Your task to perform on an android device: turn on translation in the chrome app Image 0: 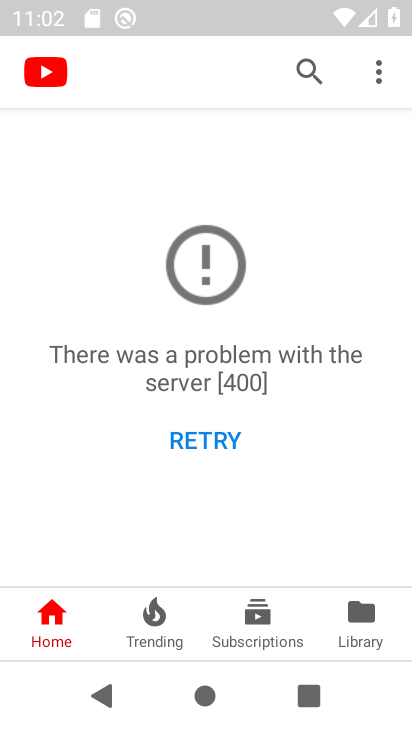
Step 0: press back button
Your task to perform on an android device: turn on translation in the chrome app Image 1: 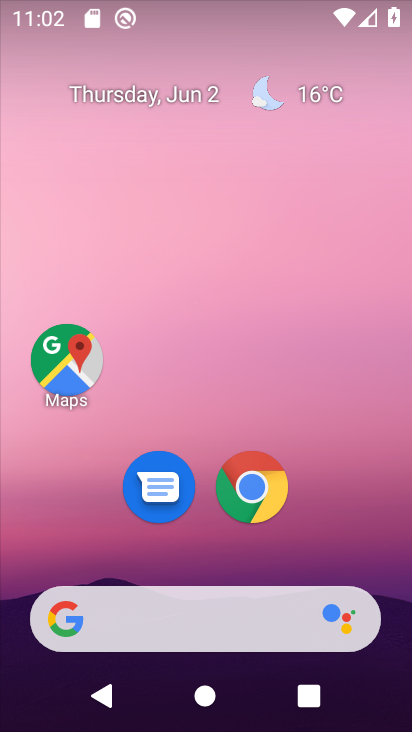
Step 1: click (253, 487)
Your task to perform on an android device: turn on translation in the chrome app Image 2: 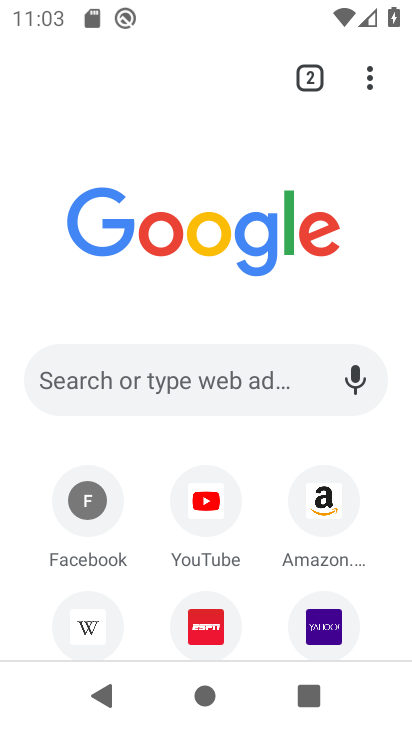
Step 2: click (371, 78)
Your task to perform on an android device: turn on translation in the chrome app Image 3: 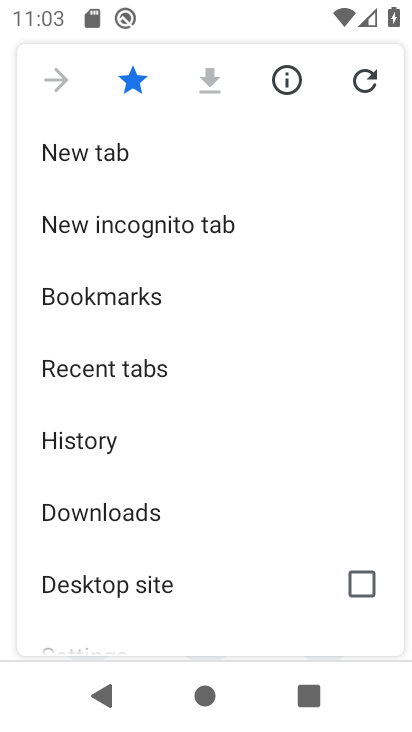
Step 3: drag from (126, 395) to (111, 312)
Your task to perform on an android device: turn on translation in the chrome app Image 4: 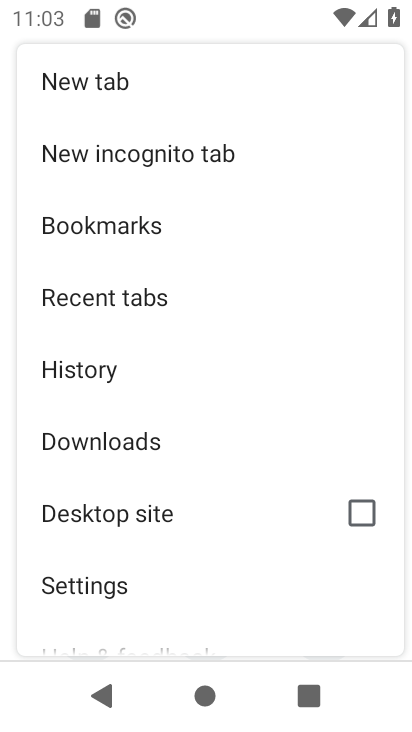
Step 4: drag from (114, 410) to (136, 335)
Your task to perform on an android device: turn on translation in the chrome app Image 5: 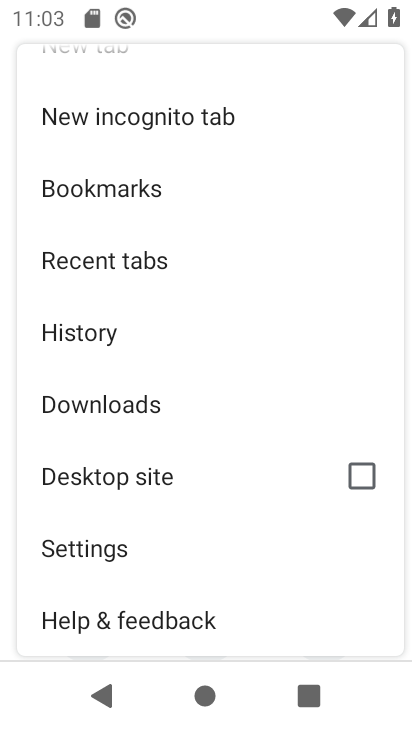
Step 5: click (101, 547)
Your task to perform on an android device: turn on translation in the chrome app Image 6: 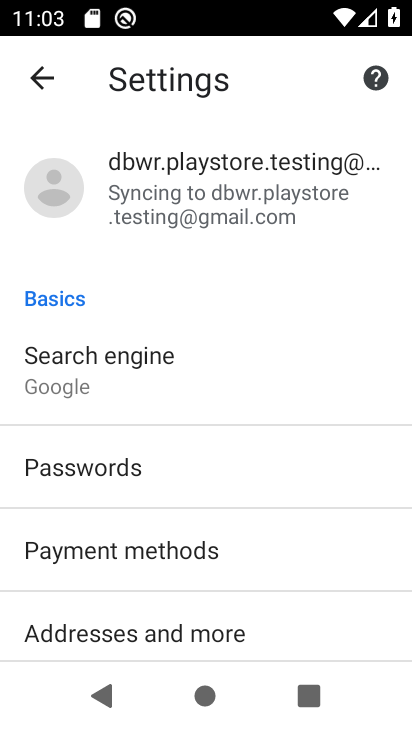
Step 6: drag from (179, 422) to (192, 375)
Your task to perform on an android device: turn on translation in the chrome app Image 7: 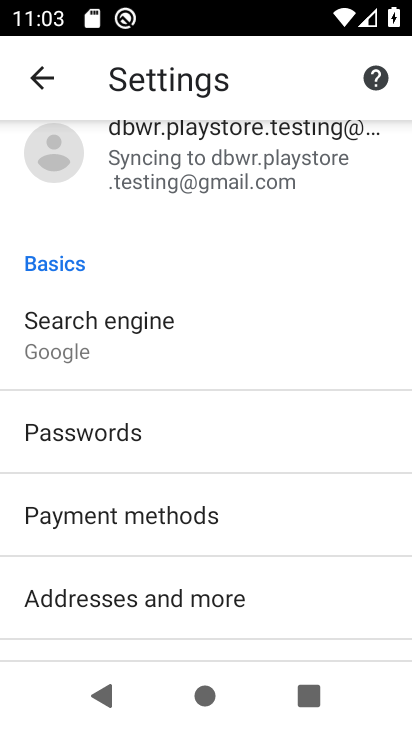
Step 7: drag from (161, 536) to (279, 255)
Your task to perform on an android device: turn on translation in the chrome app Image 8: 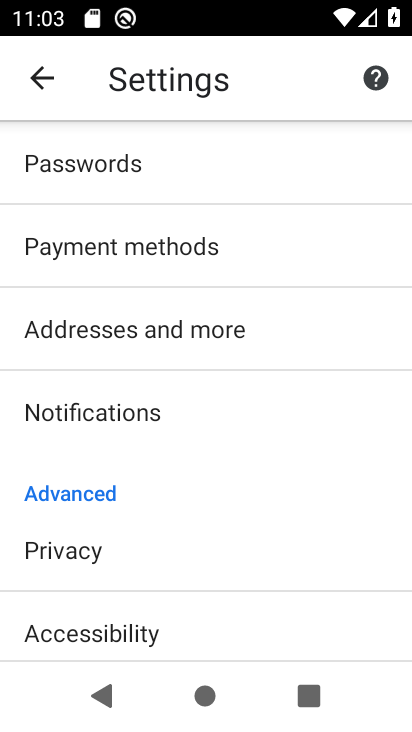
Step 8: drag from (149, 515) to (284, 224)
Your task to perform on an android device: turn on translation in the chrome app Image 9: 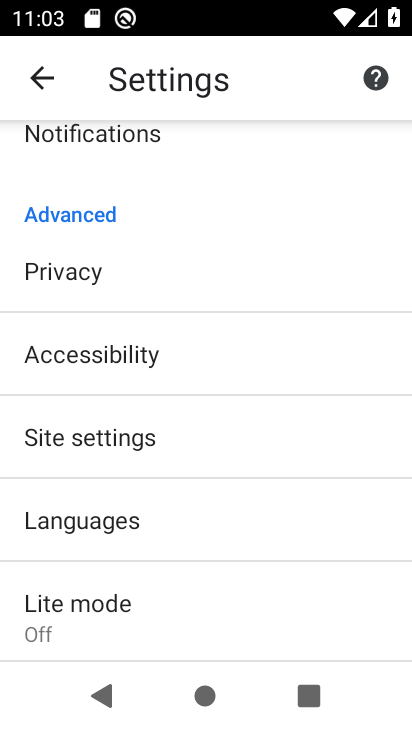
Step 9: click (102, 527)
Your task to perform on an android device: turn on translation in the chrome app Image 10: 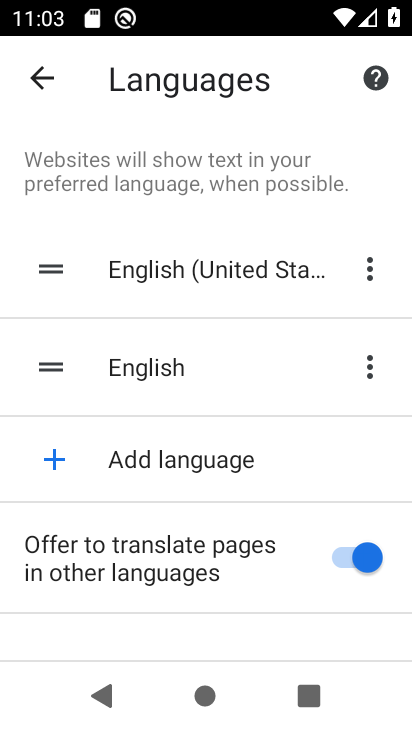
Step 10: task complete